Your task to perform on an android device: change keyboard looks Image 0: 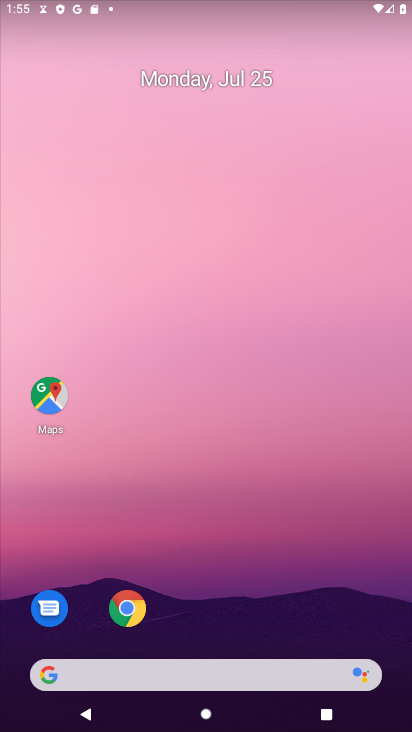
Step 0: drag from (182, 675) to (362, 22)
Your task to perform on an android device: change keyboard looks Image 1: 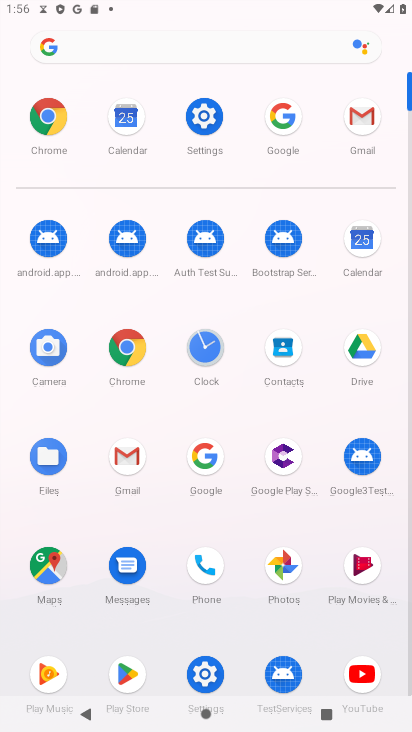
Step 1: click (204, 115)
Your task to perform on an android device: change keyboard looks Image 2: 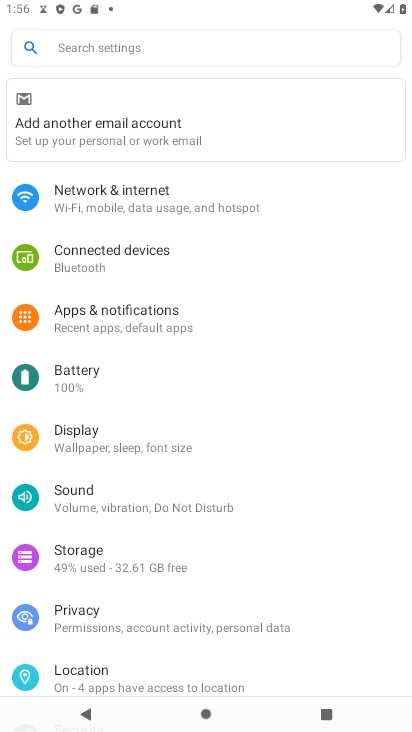
Step 2: drag from (114, 348) to (145, 278)
Your task to perform on an android device: change keyboard looks Image 3: 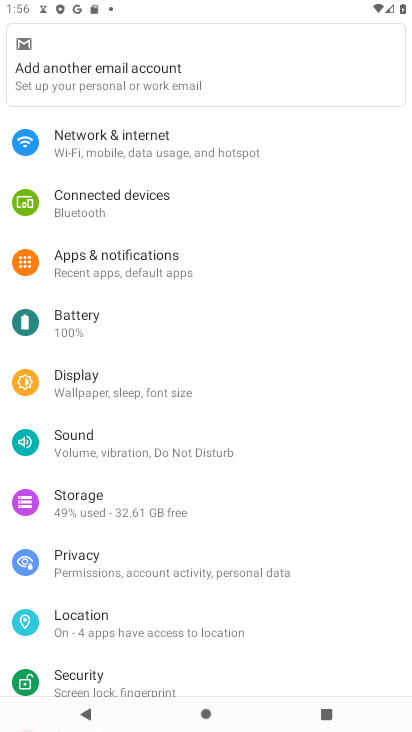
Step 3: drag from (98, 405) to (126, 339)
Your task to perform on an android device: change keyboard looks Image 4: 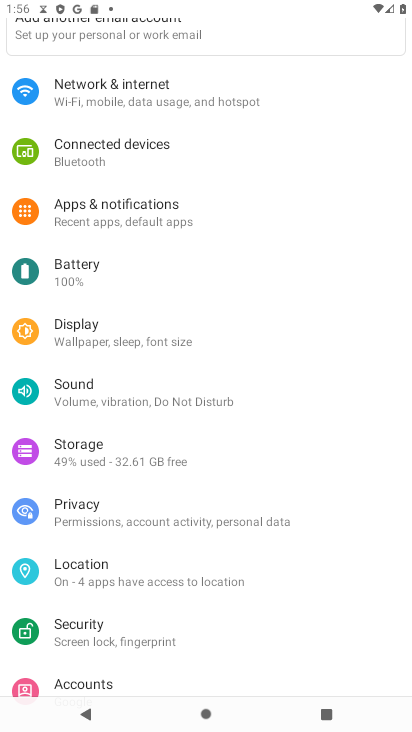
Step 4: drag from (93, 420) to (142, 345)
Your task to perform on an android device: change keyboard looks Image 5: 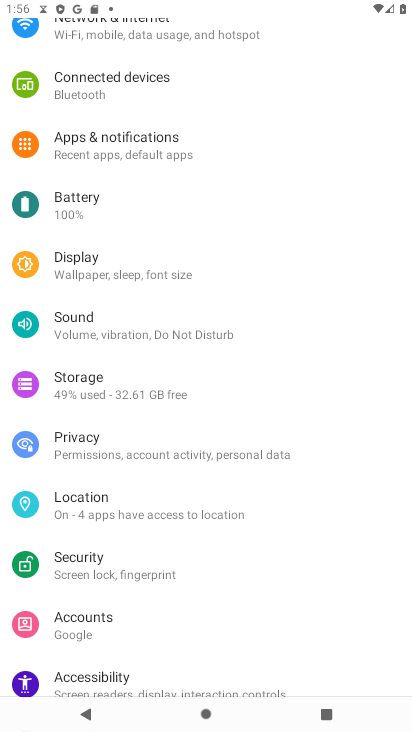
Step 5: drag from (86, 413) to (158, 323)
Your task to perform on an android device: change keyboard looks Image 6: 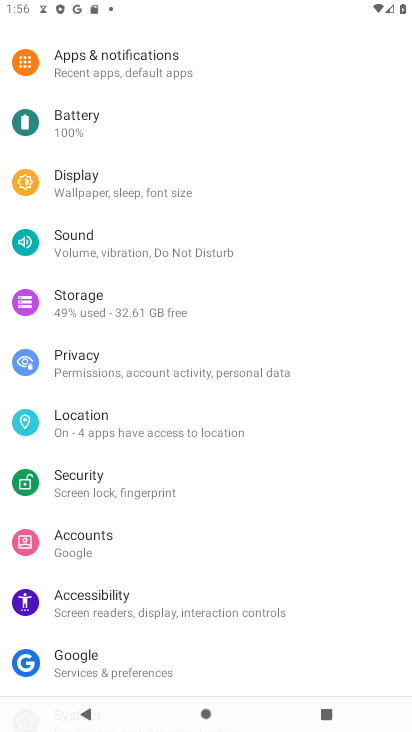
Step 6: drag from (96, 390) to (156, 312)
Your task to perform on an android device: change keyboard looks Image 7: 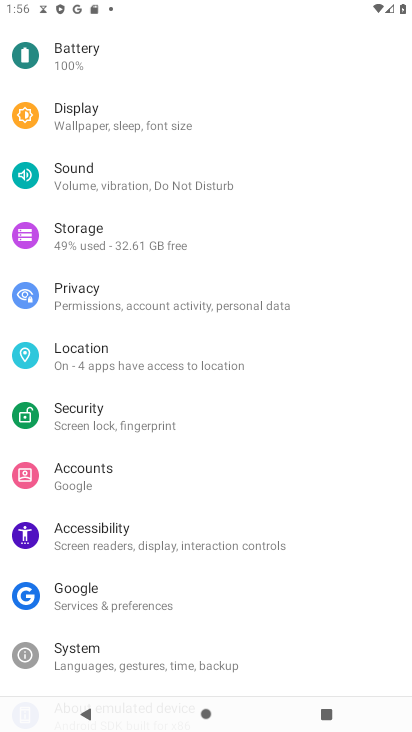
Step 7: drag from (84, 437) to (152, 335)
Your task to perform on an android device: change keyboard looks Image 8: 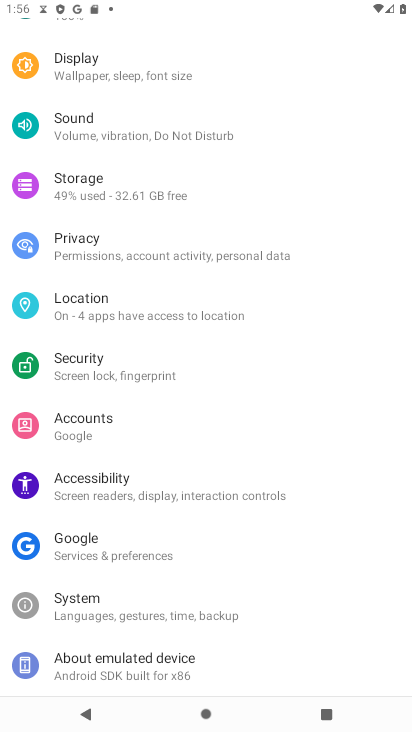
Step 8: click (95, 610)
Your task to perform on an android device: change keyboard looks Image 9: 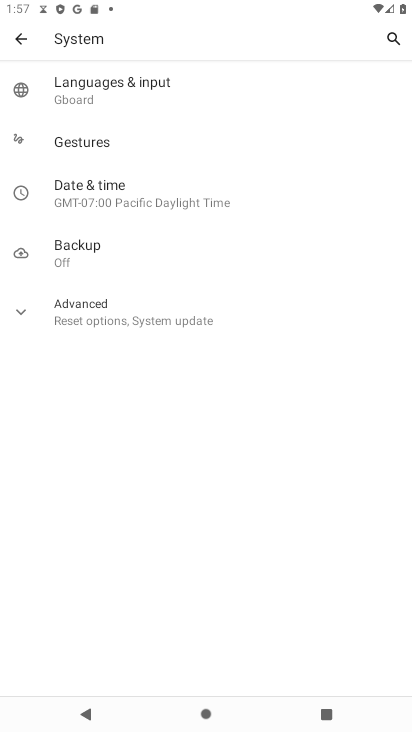
Step 9: click (110, 90)
Your task to perform on an android device: change keyboard looks Image 10: 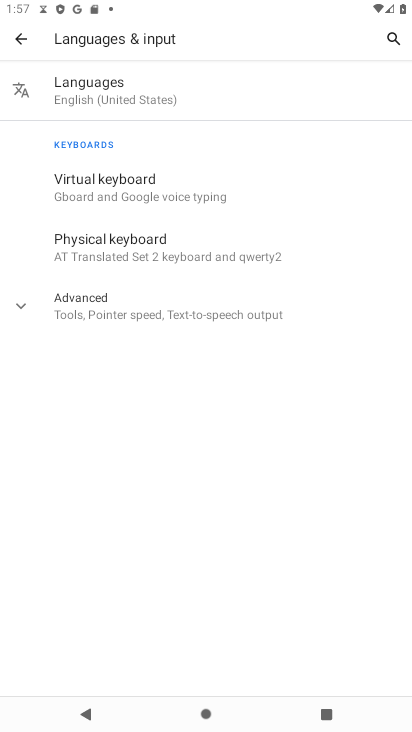
Step 10: click (108, 190)
Your task to perform on an android device: change keyboard looks Image 11: 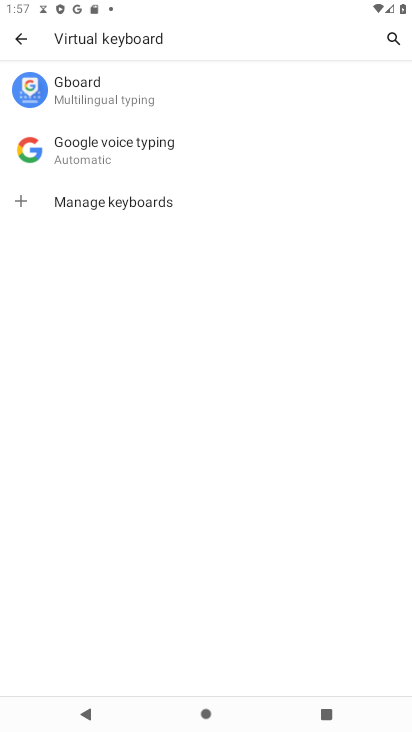
Step 11: click (80, 93)
Your task to perform on an android device: change keyboard looks Image 12: 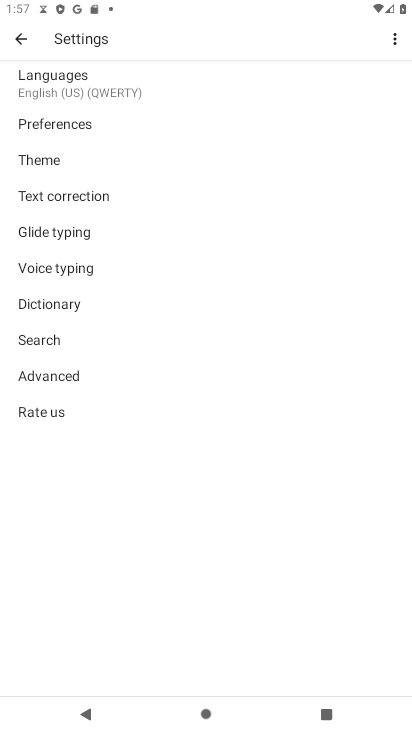
Step 12: click (53, 156)
Your task to perform on an android device: change keyboard looks Image 13: 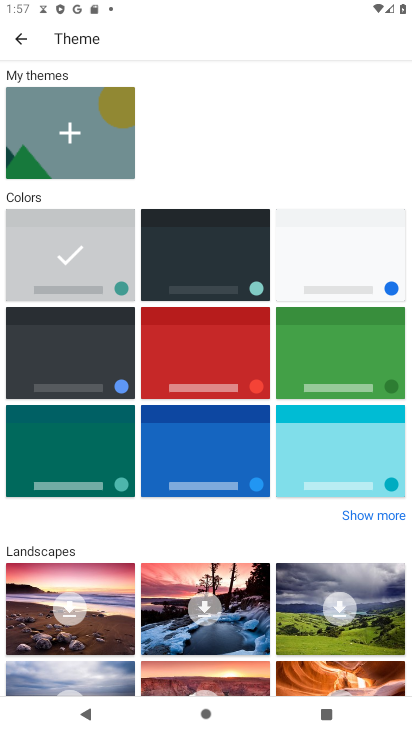
Step 13: click (197, 355)
Your task to perform on an android device: change keyboard looks Image 14: 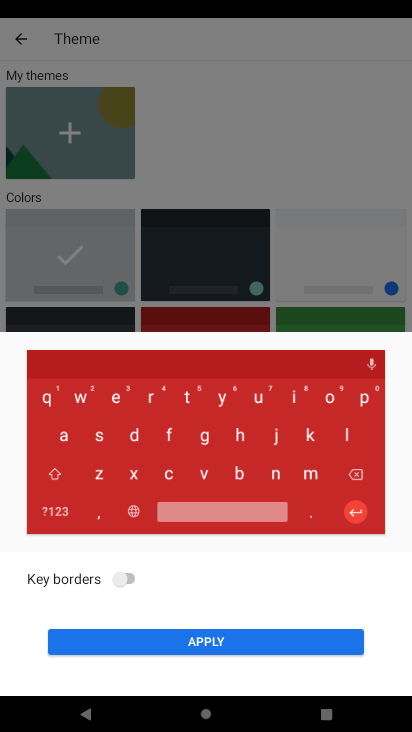
Step 14: click (129, 579)
Your task to perform on an android device: change keyboard looks Image 15: 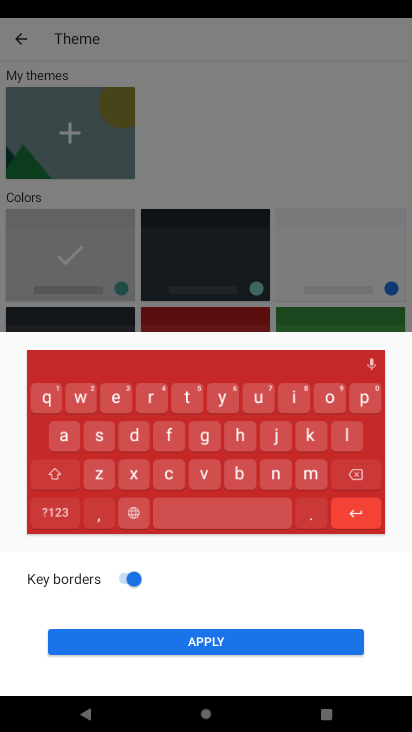
Step 15: click (213, 641)
Your task to perform on an android device: change keyboard looks Image 16: 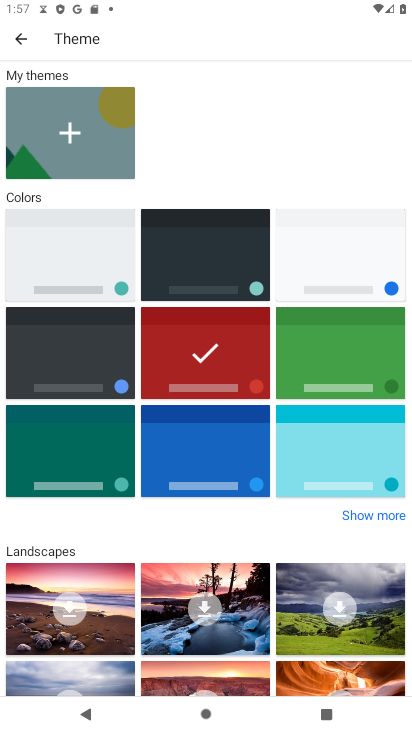
Step 16: task complete